Your task to perform on an android device: visit the assistant section in the google photos Image 0: 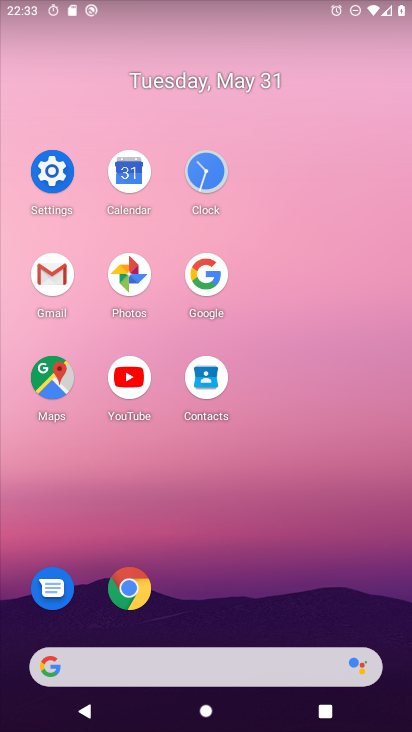
Step 0: click (134, 265)
Your task to perform on an android device: visit the assistant section in the google photos Image 1: 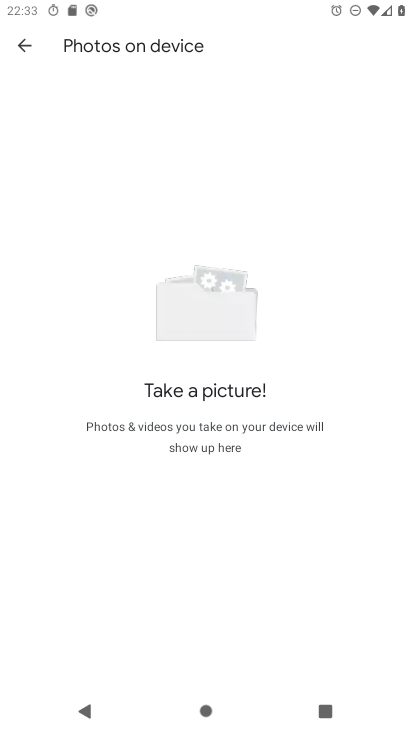
Step 1: click (29, 49)
Your task to perform on an android device: visit the assistant section in the google photos Image 2: 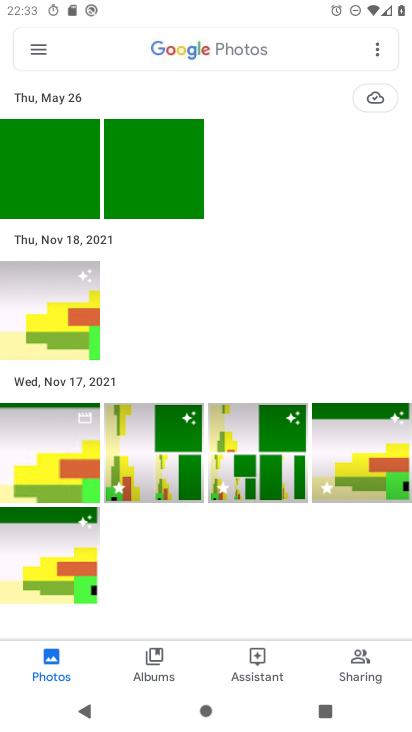
Step 2: click (251, 675)
Your task to perform on an android device: visit the assistant section in the google photos Image 3: 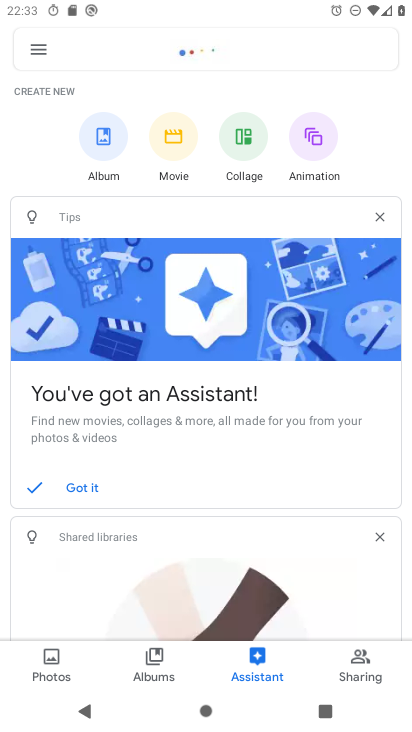
Step 3: task complete